Your task to perform on an android device: Open calendar and show me the third week of next month Image 0: 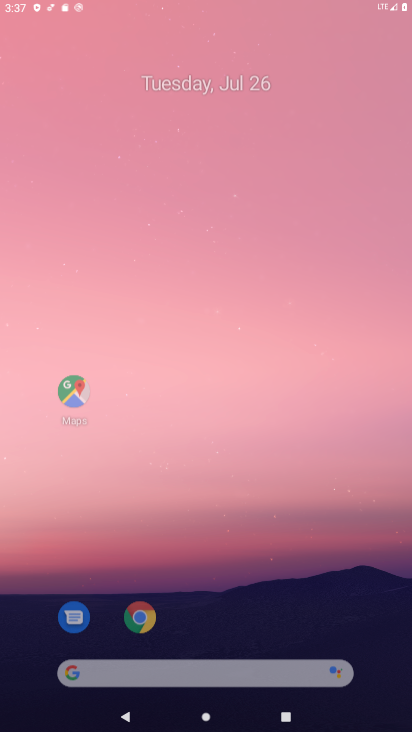
Step 0: press home button
Your task to perform on an android device: Open calendar and show me the third week of next month Image 1: 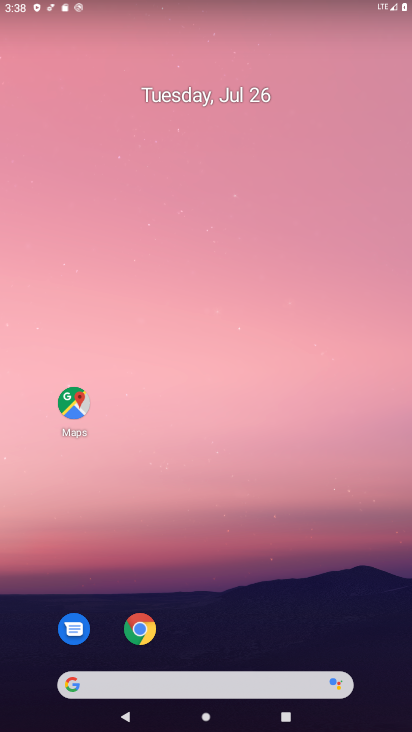
Step 1: drag from (236, 725) to (264, 189)
Your task to perform on an android device: Open calendar and show me the third week of next month Image 2: 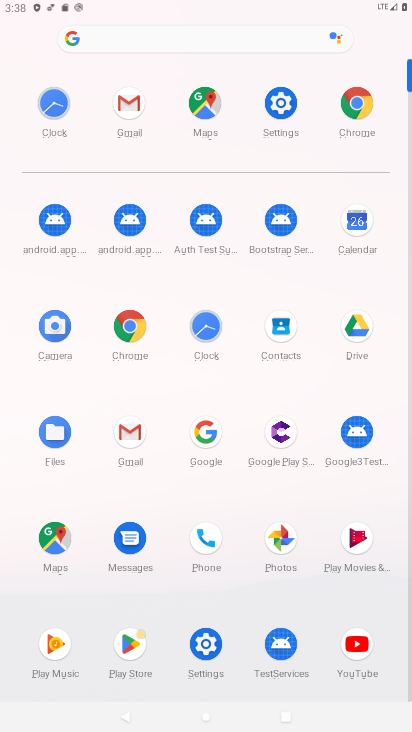
Step 2: click (359, 231)
Your task to perform on an android device: Open calendar and show me the third week of next month Image 3: 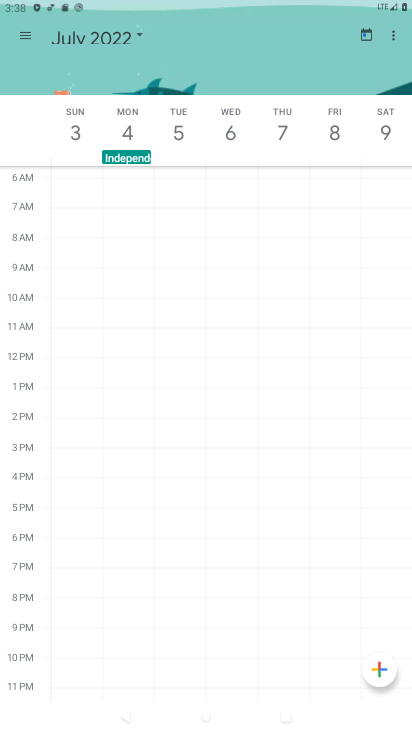
Step 3: click (137, 31)
Your task to perform on an android device: Open calendar and show me the third week of next month Image 4: 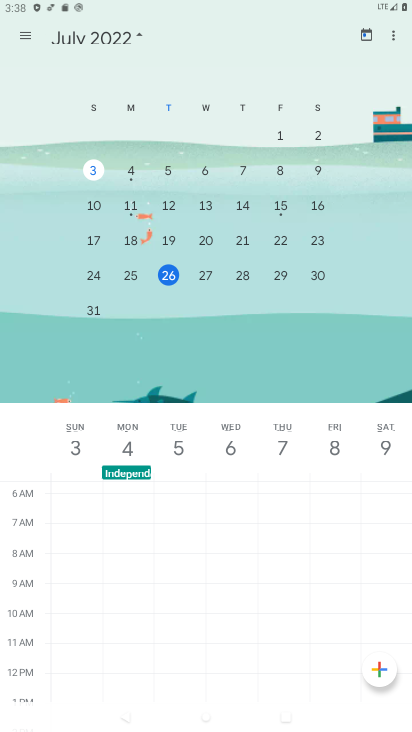
Step 4: drag from (282, 210) to (0, 224)
Your task to perform on an android device: Open calendar and show me the third week of next month Image 5: 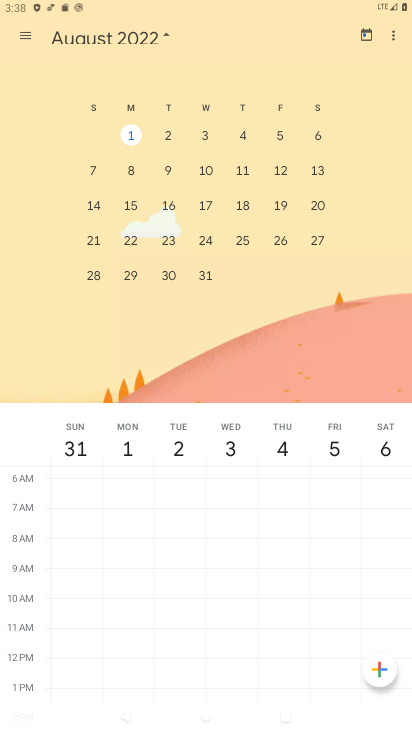
Step 5: click (129, 206)
Your task to perform on an android device: Open calendar and show me the third week of next month Image 6: 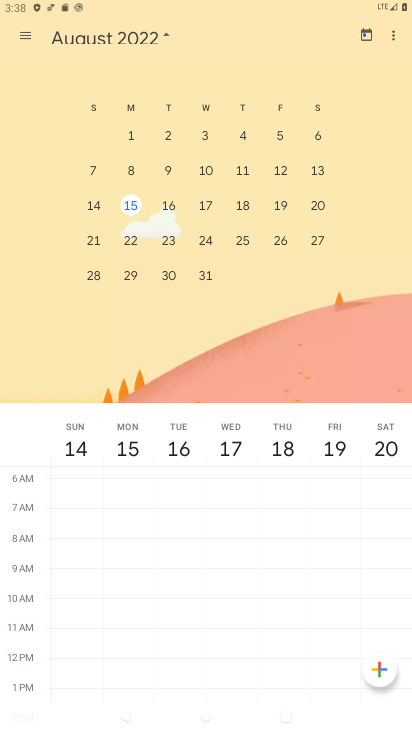
Step 6: click (24, 30)
Your task to perform on an android device: Open calendar and show me the third week of next month Image 7: 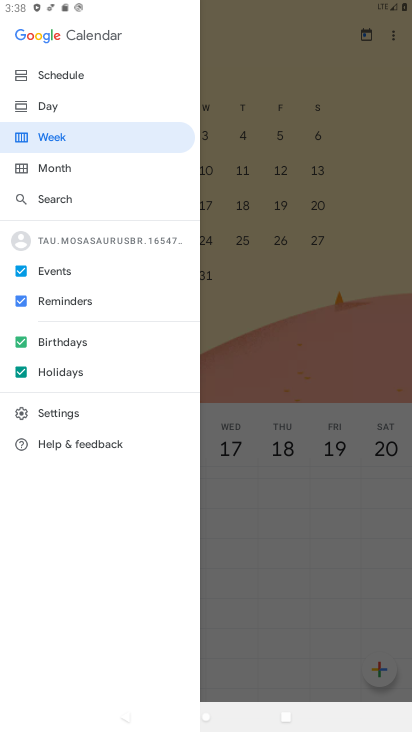
Step 7: click (101, 139)
Your task to perform on an android device: Open calendar and show me the third week of next month Image 8: 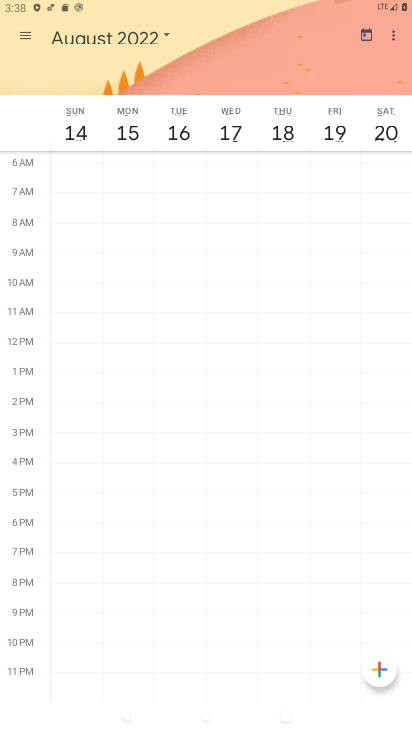
Step 8: task complete